Your task to perform on an android device: set the timer Image 0: 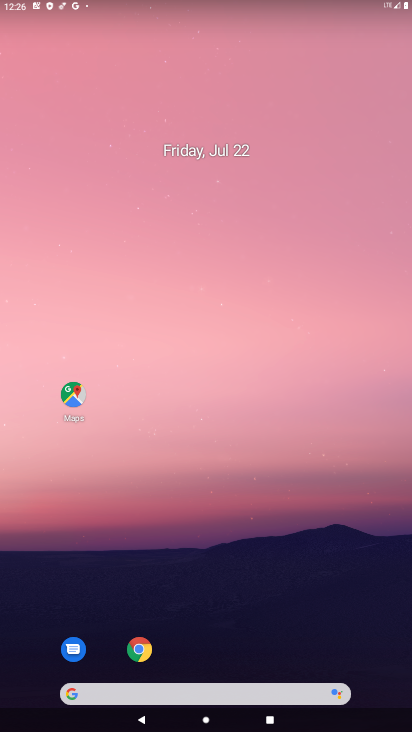
Step 0: drag from (223, 682) to (212, 59)
Your task to perform on an android device: set the timer Image 1: 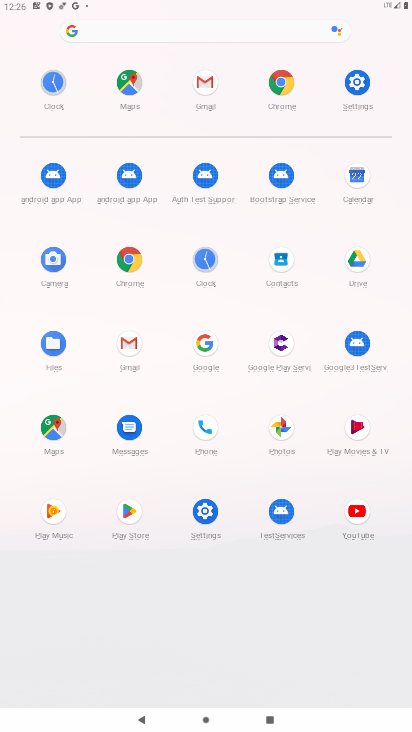
Step 1: click (203, 254)
Your task to perform on an android device: set the timer Image 2: 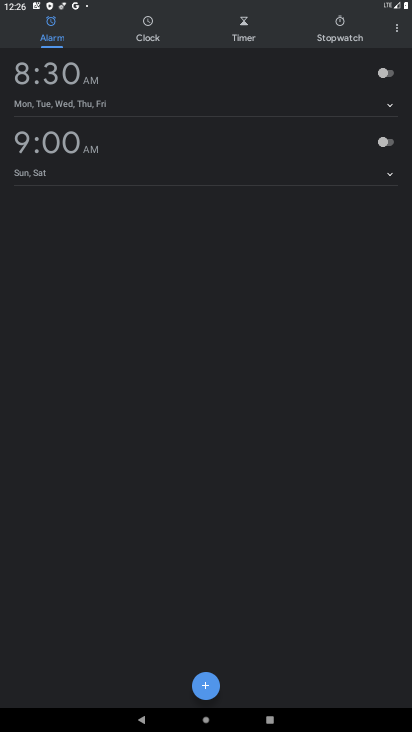
Step 2: click (243, 29)
Your task to perform on an android device: set the timer Image 3: 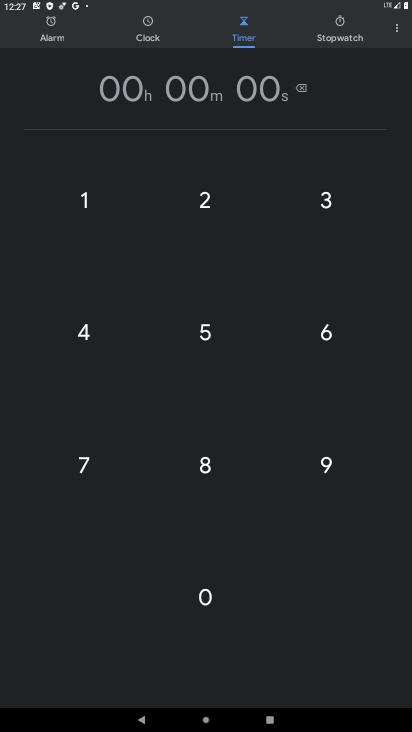
Step 3: click (207, 332)
Your task to perform on an android device: set the timer Image 4: 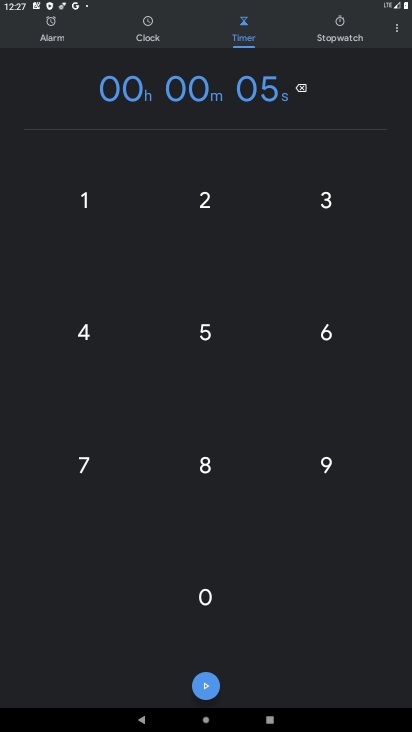
Step 4: click (207, 457)
Your task to perform on an android device: set the timer Image 5: 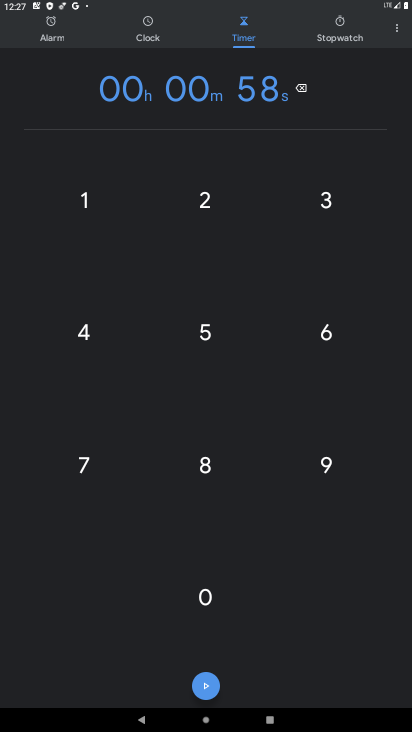
Step 5: click (205, 691)
Your task to perform on an android device: set the timer Image 6: 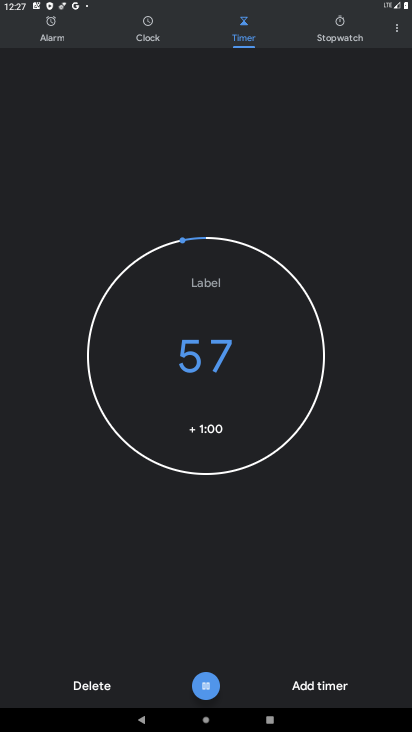
Step 6: task complete